Your task to perform on an android device: Open Google Chrome and click the shortcut for Amazon.com Image 0: 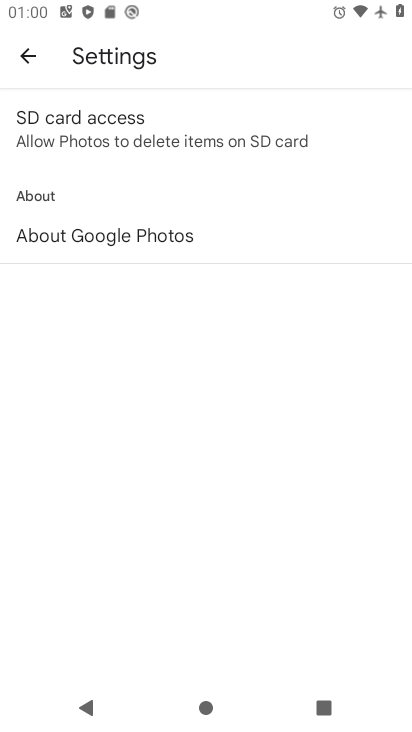
Step 0: press home button
Your task to perform on an android device: Open Google Chrome and click the shortcut for Amazon.com Image 1: 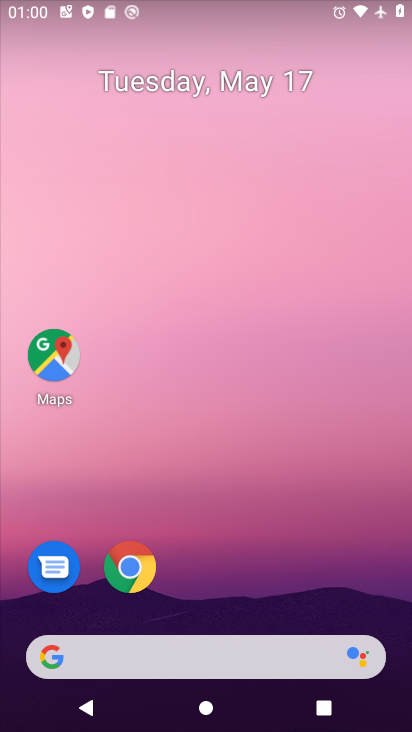
Step 1: click (126, 565)
Your task to perform on an android device: Open Google Chrome and click the shortcut for Amazon.com Image 2: 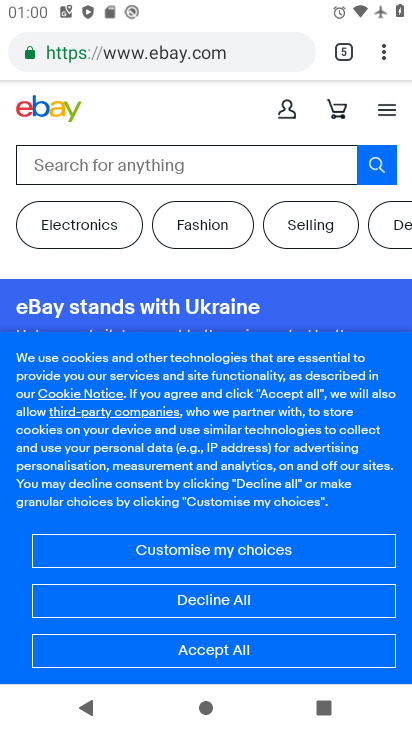
Step 2: click (382, 51)
Your task to perform on an android device: Open Google Chrome and click the shortcut for Amazon.com Image 3: 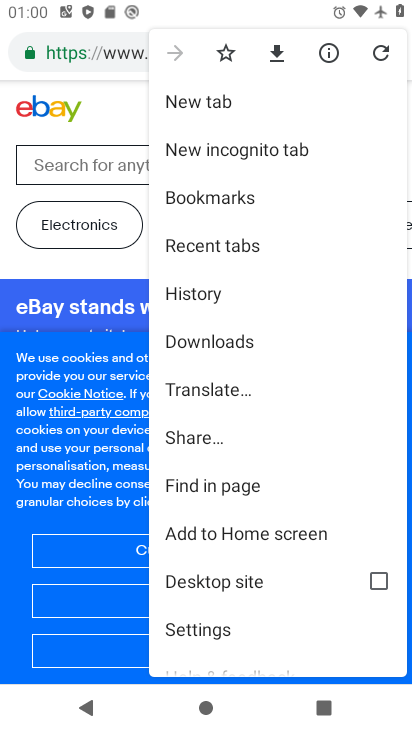
Step 3: click (211, 99)
Your task to perform on an android device: Open Google Chrome and click the shortcut for Amazon.com Image 4: 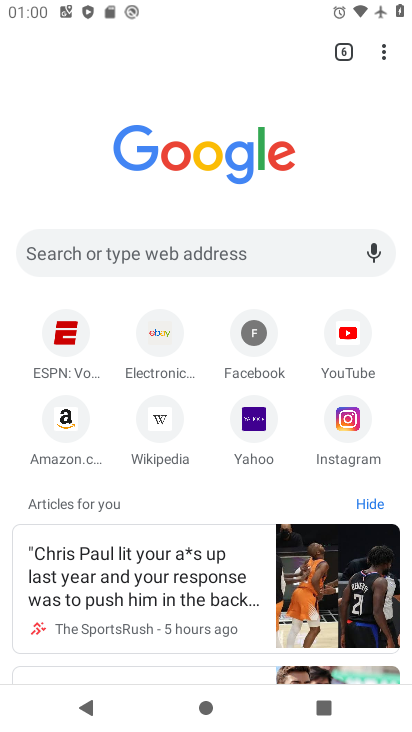
Step 4: click (61, 419)
Your task to perform on an android device: Open Google Chrome and click the shortcut for Amazon.com Image 5: 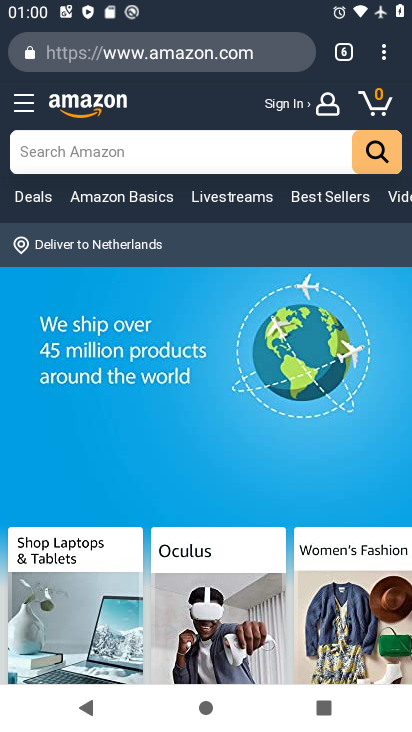
Step 5: task complete